Your task to perform on an android device: Find coffee shops on Maps Image 0: 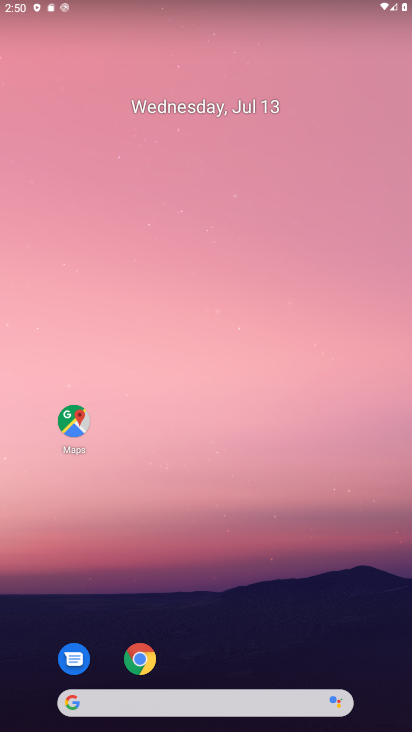
Step 0: click (86, 436)
Your task to perform on an android device: Find coffee shops on Maps Image 1: 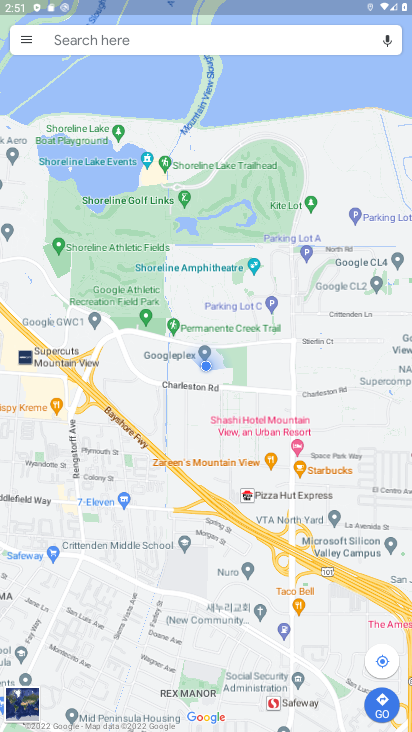
Step 1: click (262, 47)
Your task to perform on an android device: Find coffee shops on Maps Image 2: 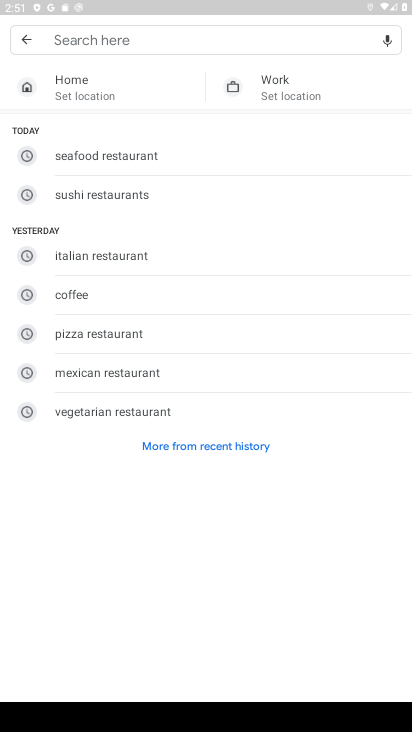
Step 2: click (137, 289)
Your task to perform on an android device: Find coffee shops on Maps Image 3: 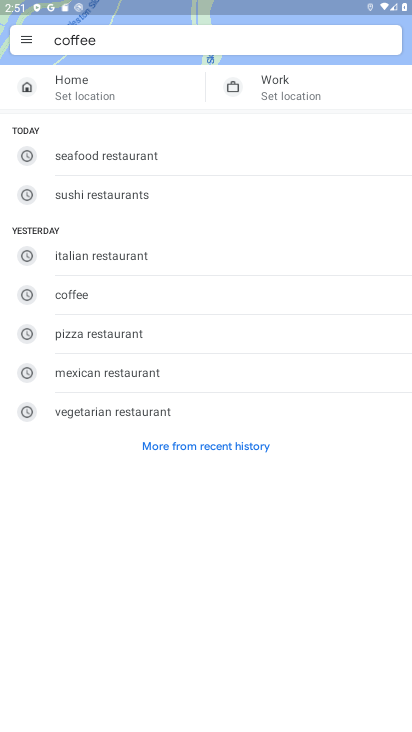
Step 3: task complete